Your task to perform on an android device: Open sound settings Image 0: 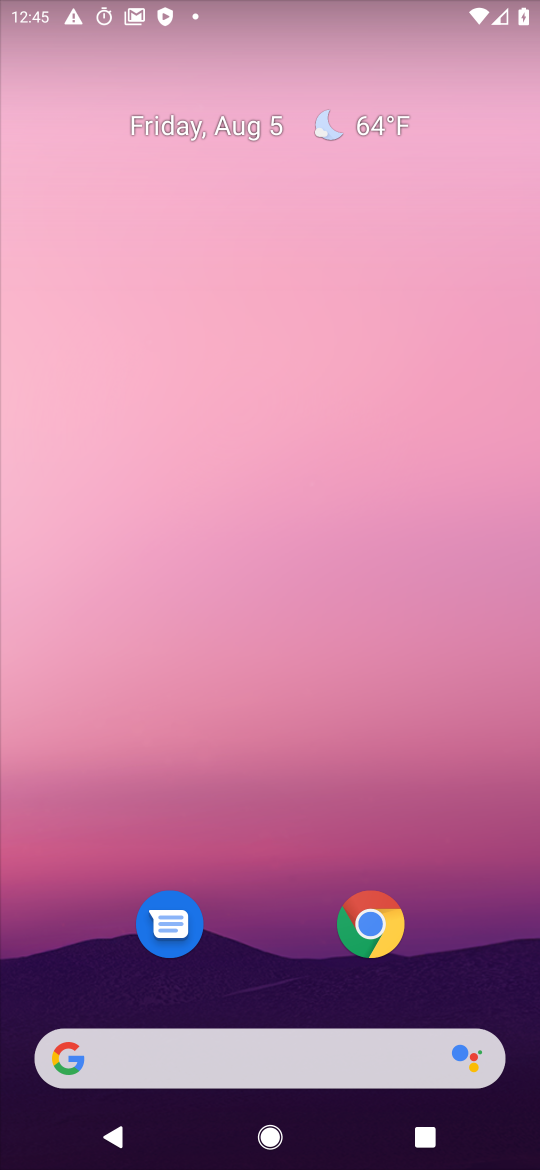
Step 0: press home button
Your task to perform on an android device: Open sound settings Image 1: 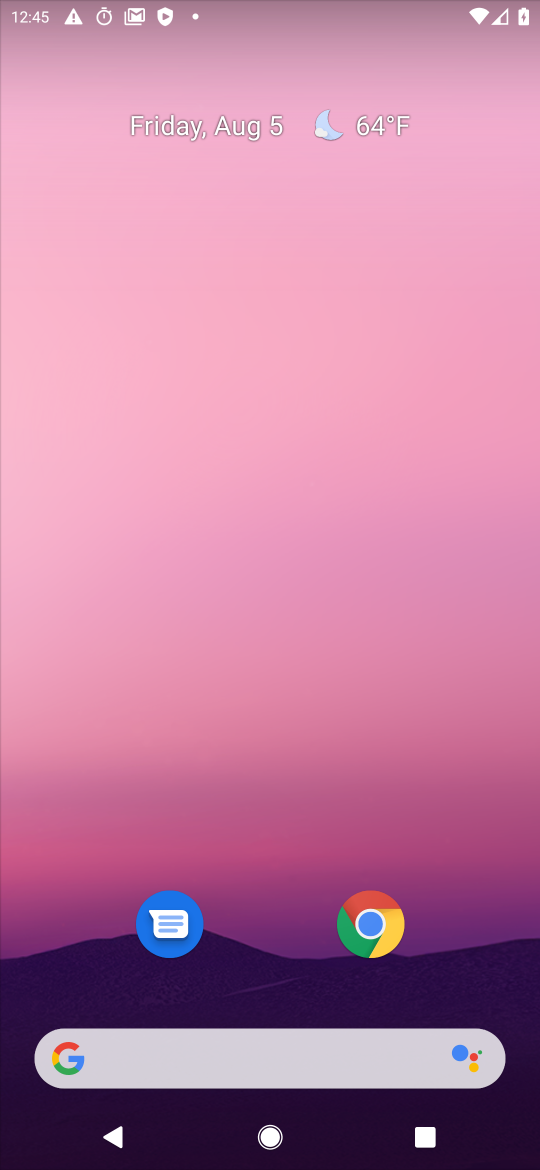
Step 1: drag from (293, 940) to (323, 205)
Your task to perform on an android device: Open sound settings Image 2: 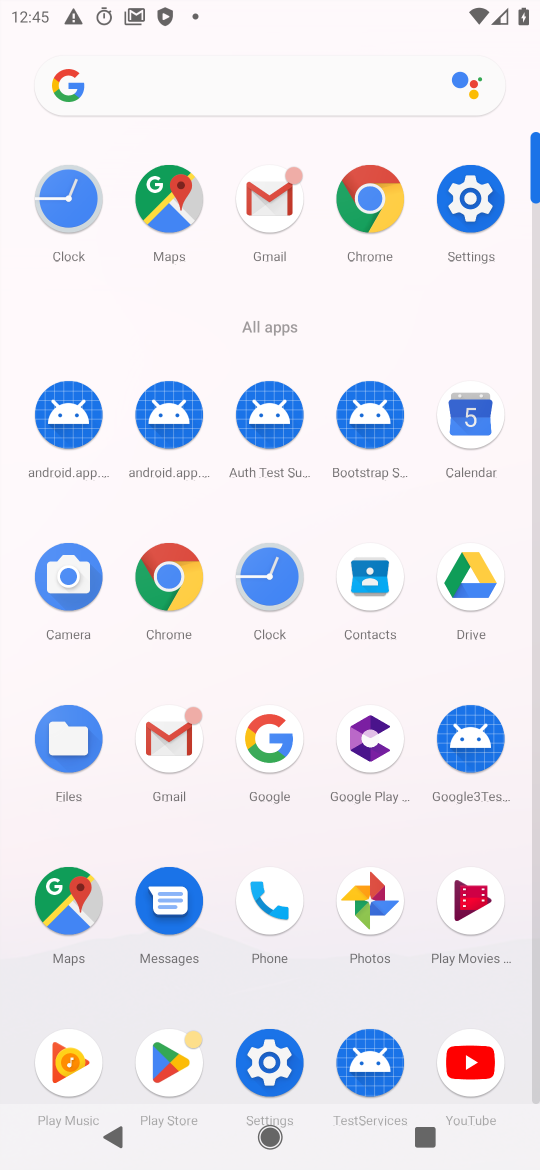
Step 2: click (476, 208)
Your task to perform on an android device: Open sound settings Image 3: 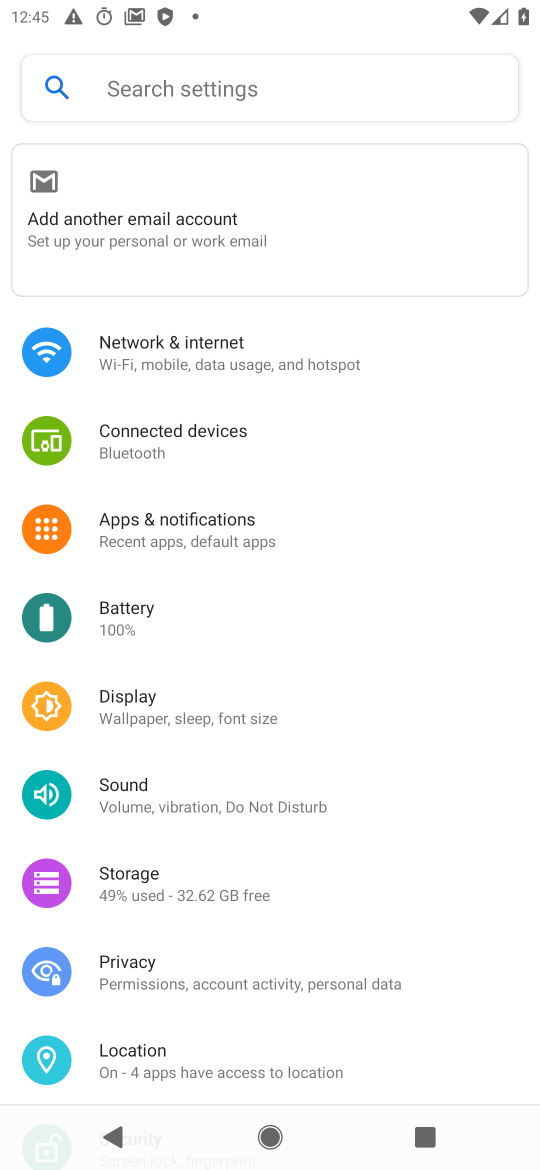
Step 3: click (122, 781)
Your task to perform on an android device: Open sound settings Image 4: 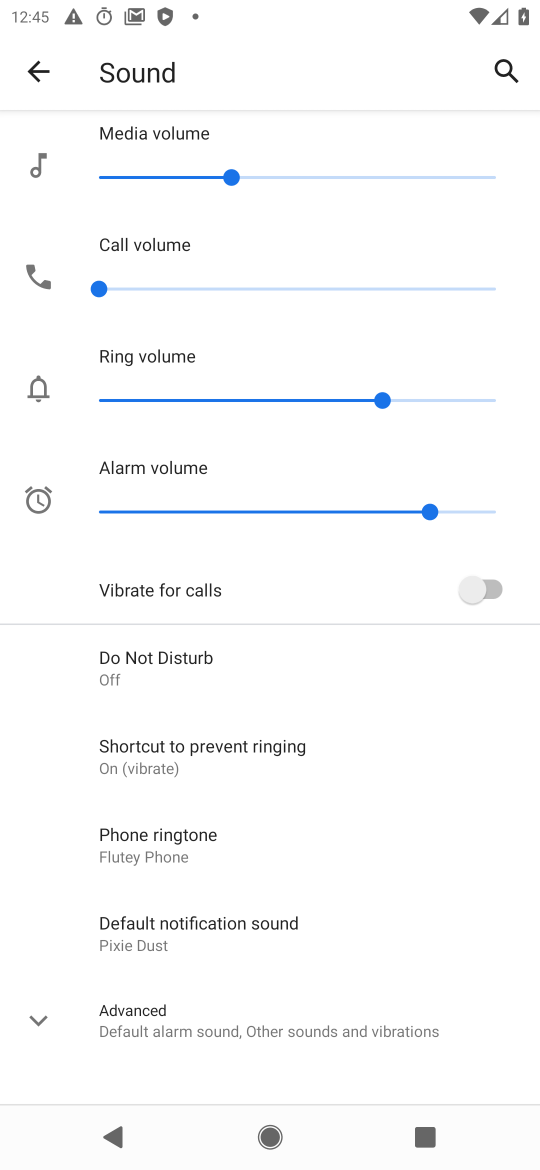
Step 4: task complete